Your task to perform on an android device: check the backup settings in the google photos Image 0: 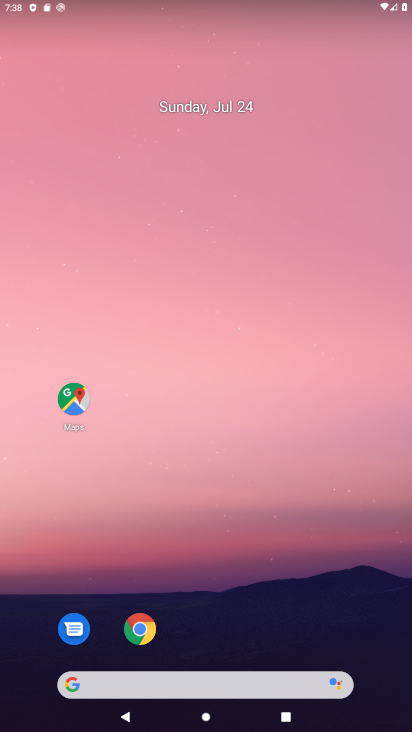
Step 0: drag from (177, 672) to (20, 61)
Your task to perform on an android device: check the backup settings in the google photos Image 1: 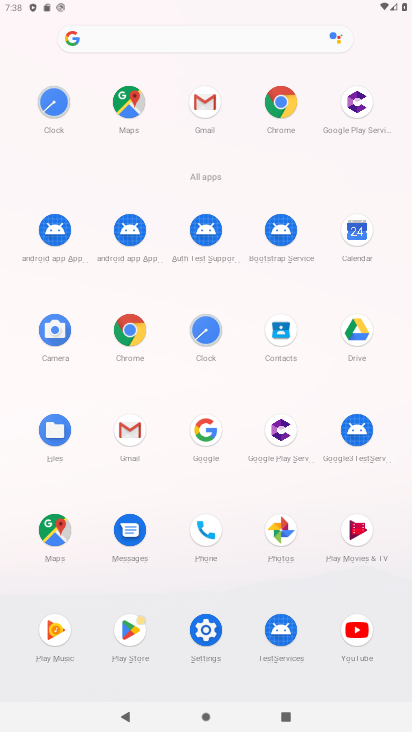
Step 1: click (278, 547)
Your task to perform on an android device: check the backup settings in the google photos Image 2: 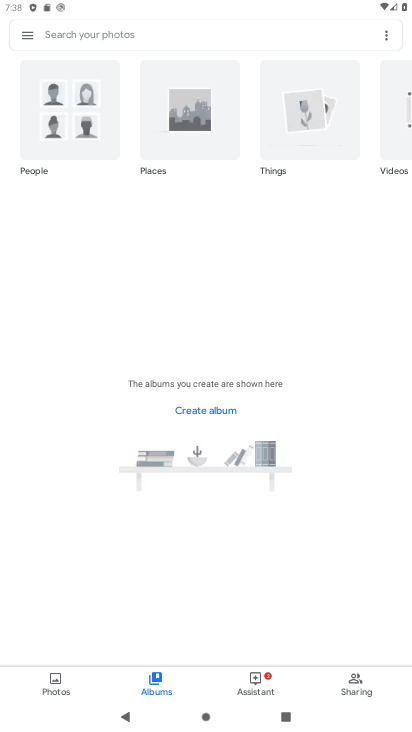
Step 2: click (23, 41)
Your task to perform on an android device: check the backup settings in the google photos Image 3: 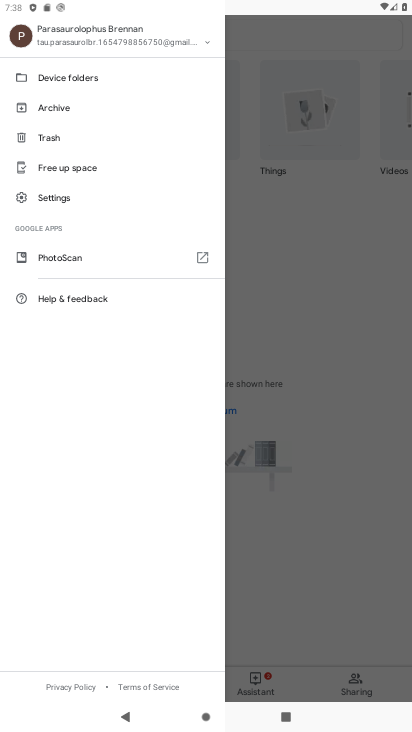
Step 3: click (43, 201)
Your task to perform on an android device: check the backup settings in the google photos Image 4: 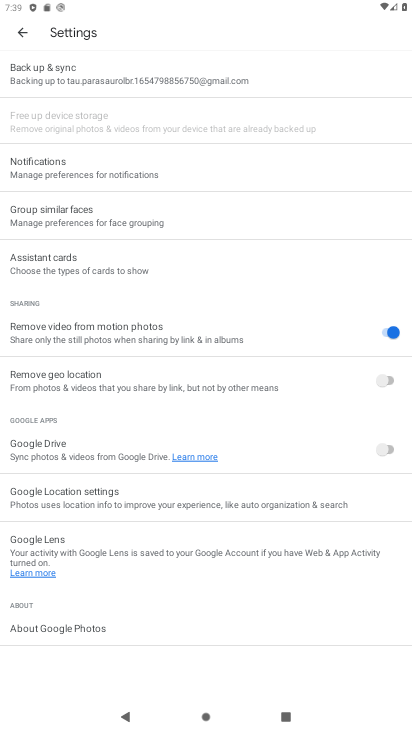
Step 4: click (123, 72)
Your task to perform on an android device: check the backup settings in the google photos Image 5: 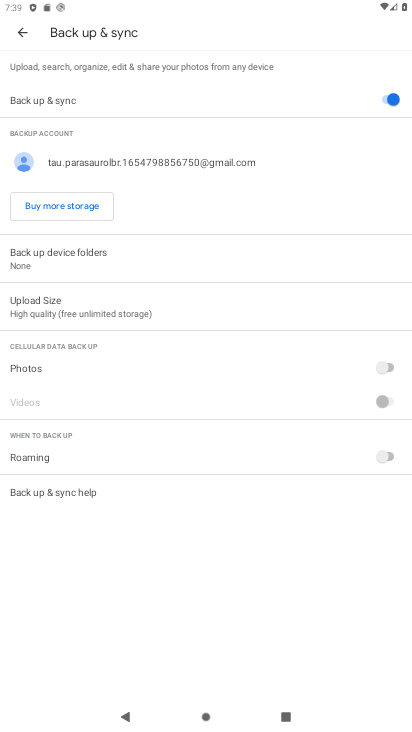
Step 5: task complete